Your task to perform on an android device: Turn on the flashlight Image 0: 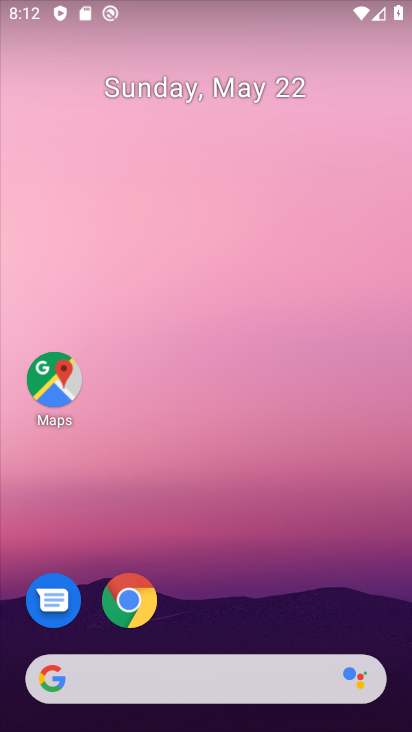
Step 0: drag from (267, 7) to (232, 396)
Your task to perform on an android device: Turn on the flashlight Image 1: 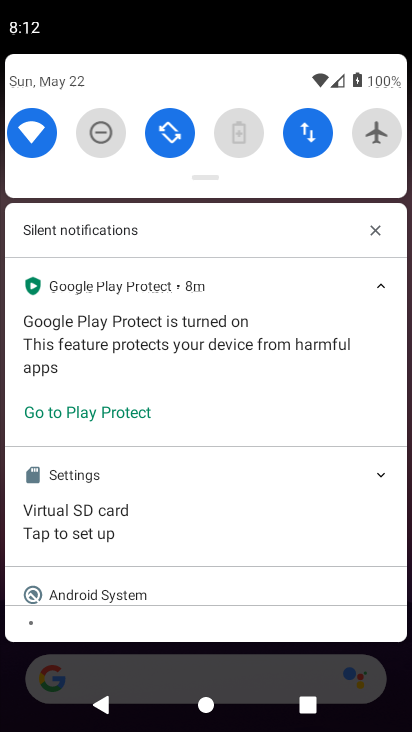
Step 1: task complete